Your task to perform on an android device: change the upload size in google photos Image 0: 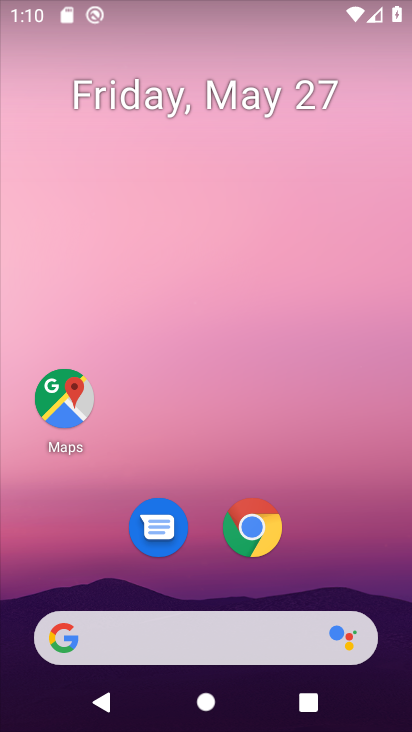
Step 0: drag from (349, 584) to (334, 229)
Your task to perform on an android device: change the upload size in google photos Image 1: 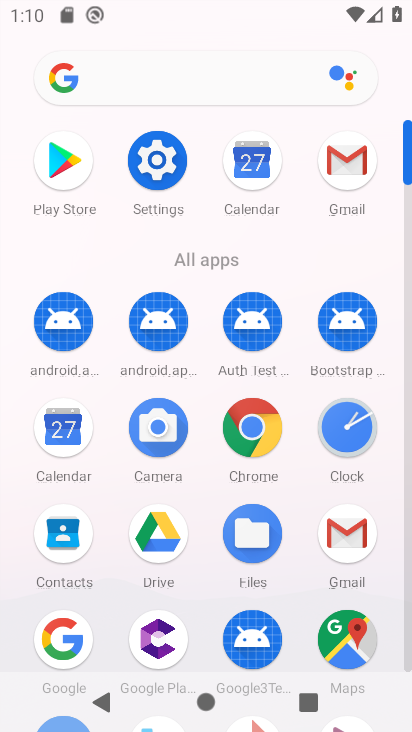
Step 1: drag from (294, 520) to (273, 436)
Your task to perform on an android device: change the upload size in google photos Image 2: 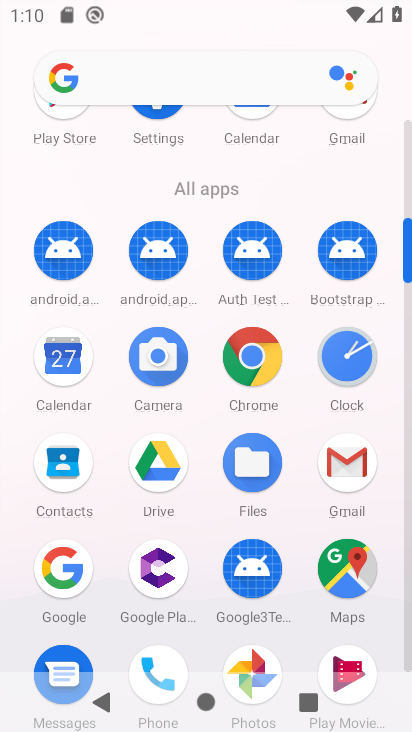
Step 2: click (249, 649)
Your task to perform on an android device: change the upload size in google photos Image 3: 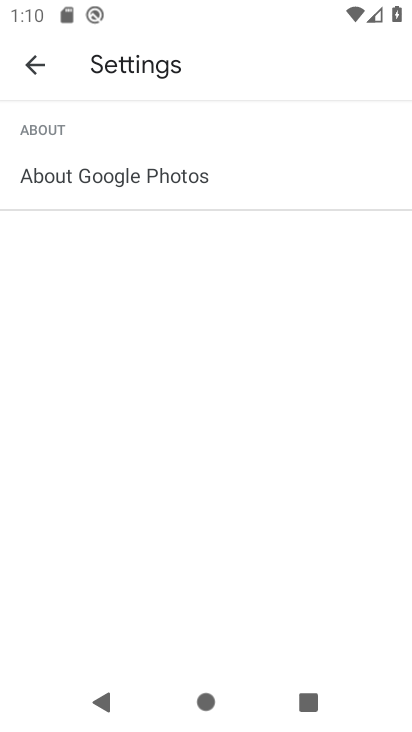
Step 3: click (35, 63)
Your task to perform on an android device: change the upload size in google photos Image 4: 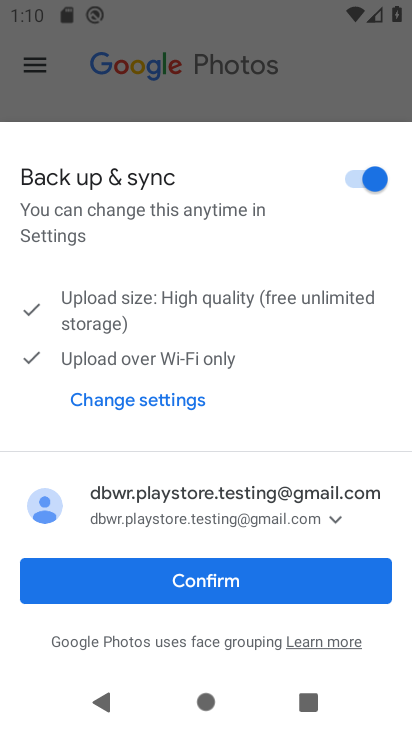
Step 4: click (215, 568)
Your task to perform on an android device: change the upload size in google photos Image 5: 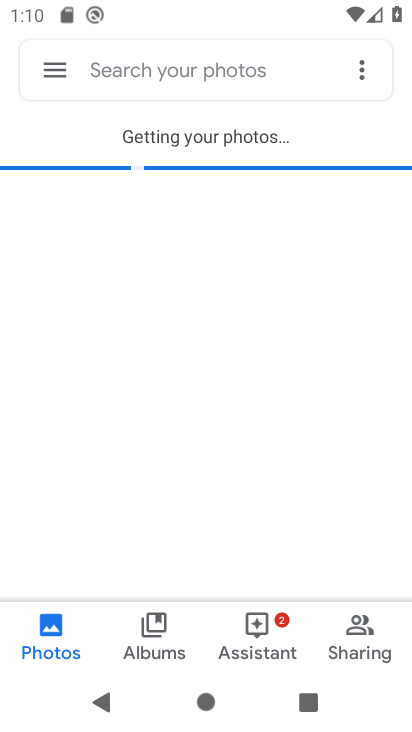
Step 5: click (36, 74)
Your task to perform on an android device: change the upload size in google photos Image 6: 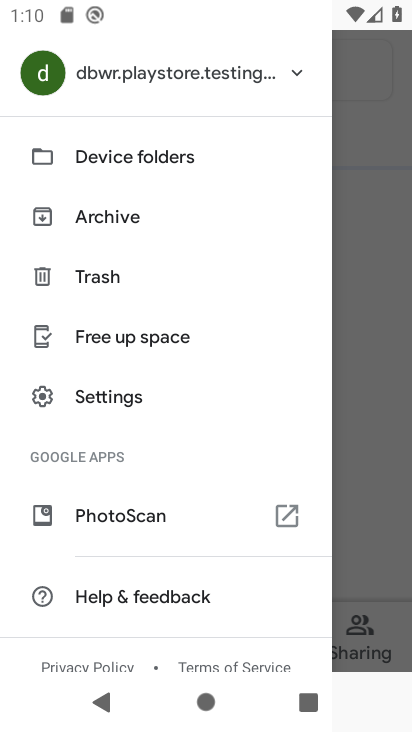
Step 6: drag from (158, 509) to (152, 208)
Your task to perform on an android device: change the upload size in google photos Image 7: 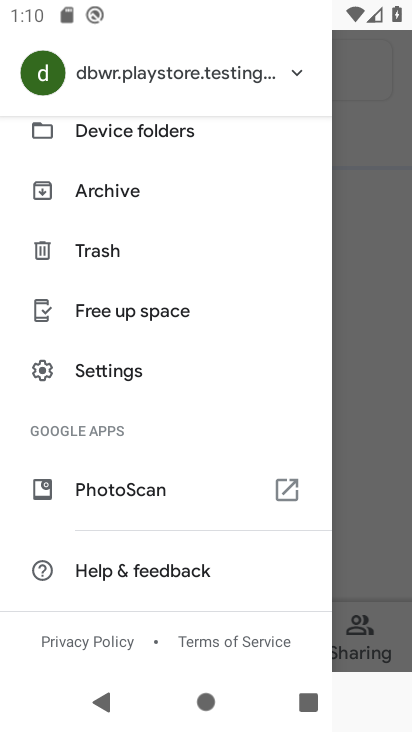
Step 7: click (125, 367)
Your task to perform on an android device: change the upload size in google photos Image 8: 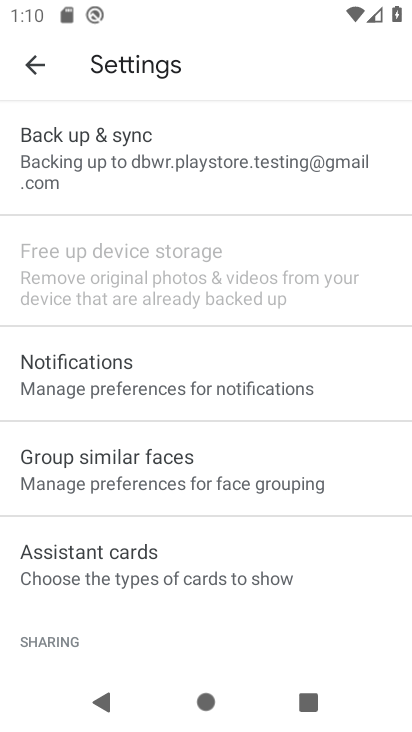
Step 8: click (110, 182)
Your task to perform on an android device: change the upload size in google photos Image 9: 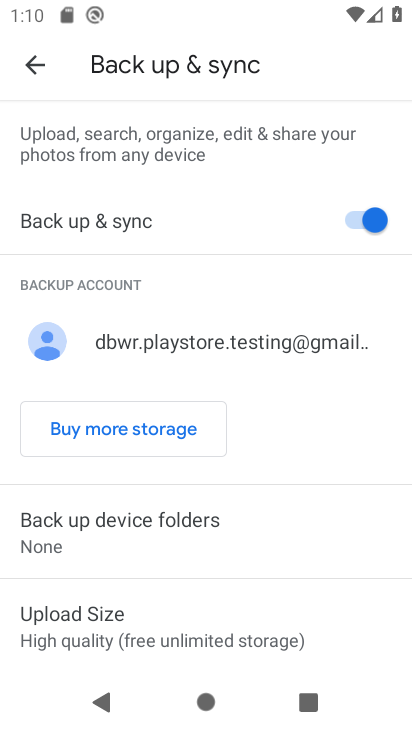
Step 9: click (224, 600)
Your task to perform on an android device: change the upload size in google photos Image 10: 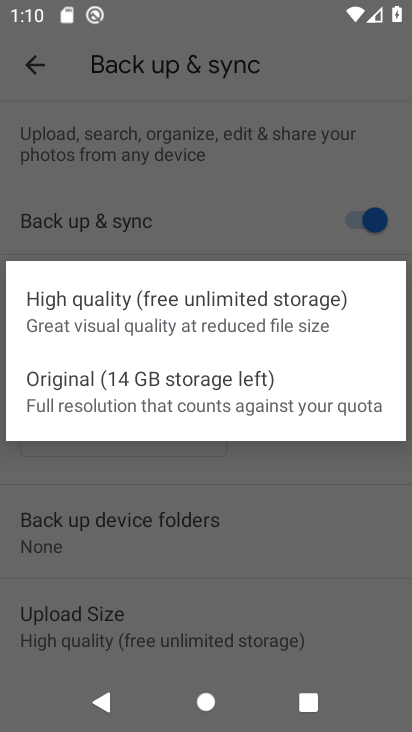
Step 10: click (168, 408)
Your task to perform on an android device: change the upload size in google photos Image 11: 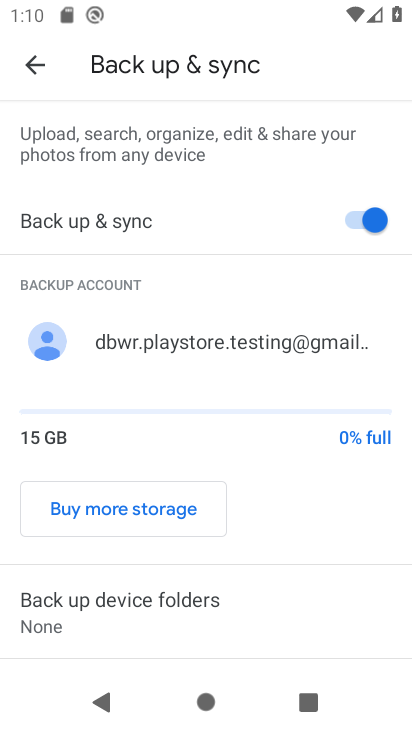
Step 11: task complete